Your task to perform on an android device: turn on the 24-hour format for clock Image 0: 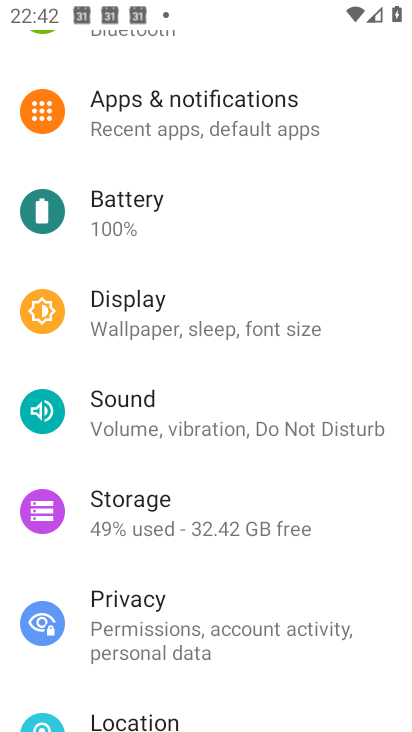
Step 0: press home button
Your task to perform on an android device: turn on the 24-hour format for clock Image 1: 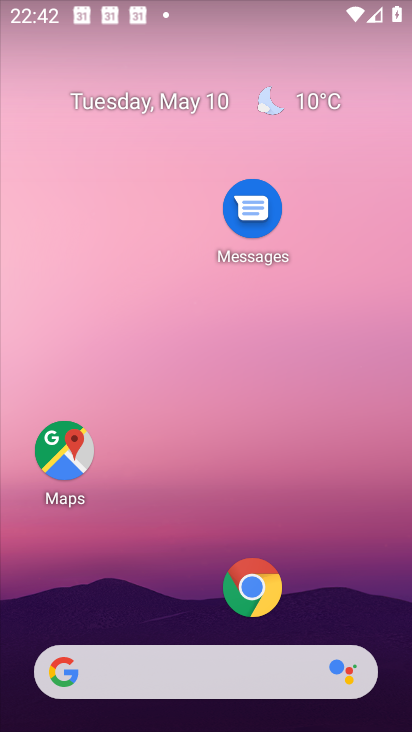
Step 1: drag from (149, 568) to (220, 211)
Your task to perform on an android device: turn on the 24-hour format for clock Image 2: 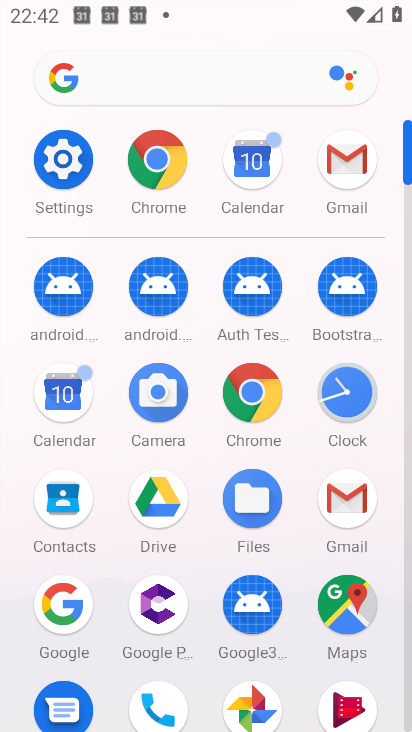
Step 2: click (57, 160)
Your task to perform on an android device: turn on the 24-hour format for clock Image 3: 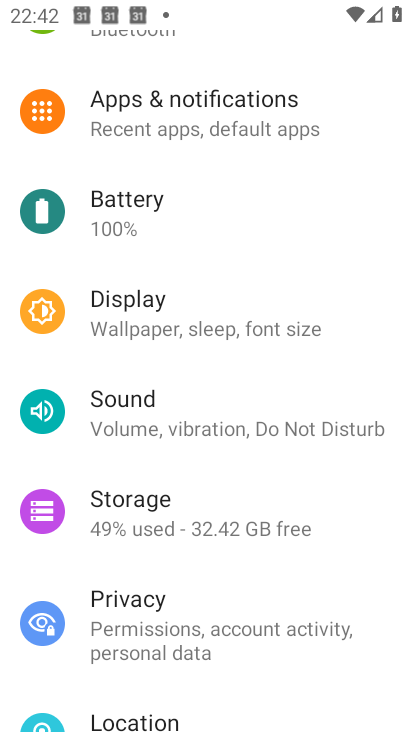
Step 3: drag from (171, 587) to (263, 324)
Your task to perform on an android device: turn on the 24-hour format for clock Image 4: 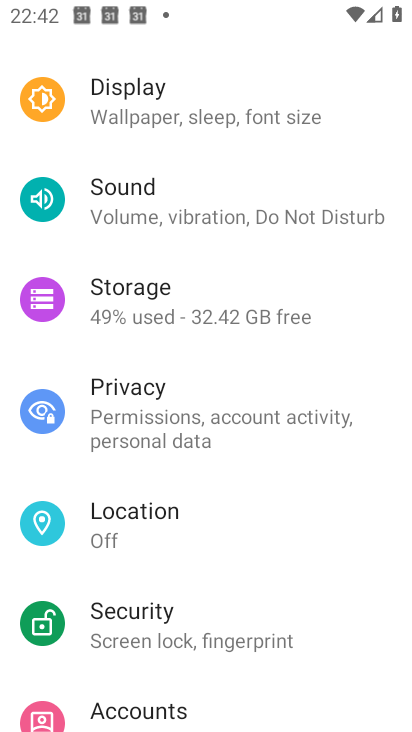
Step 4: drag from (232, 595) to (305, 247)
Your task to perform on an android device: turn on the 24-hour format for clock Image 5: 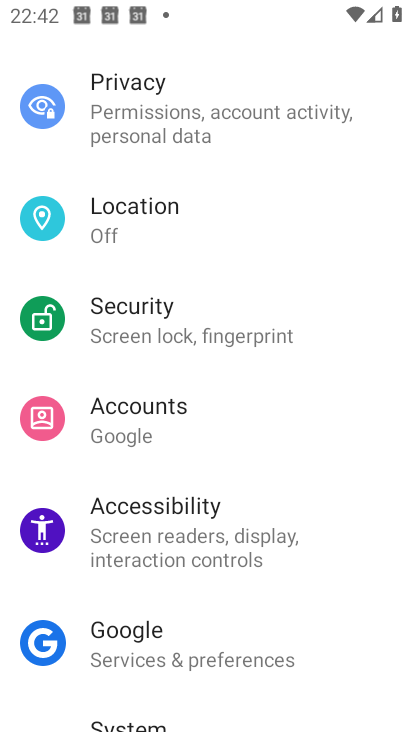
Step 5: drag from (222, 581) to (271, 308)
Your task to perform on an android device: turn on the 24-hour format for clock Image 6: 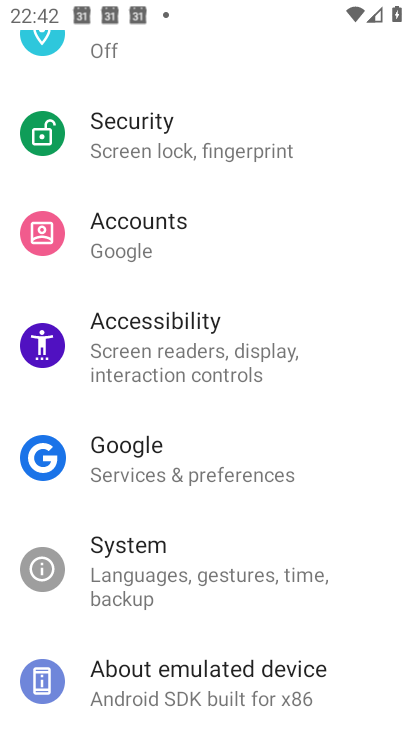
Step 6: click (180, 578)
Your task to perform on an android device: turn on the 24-hour format for clock Image 7: 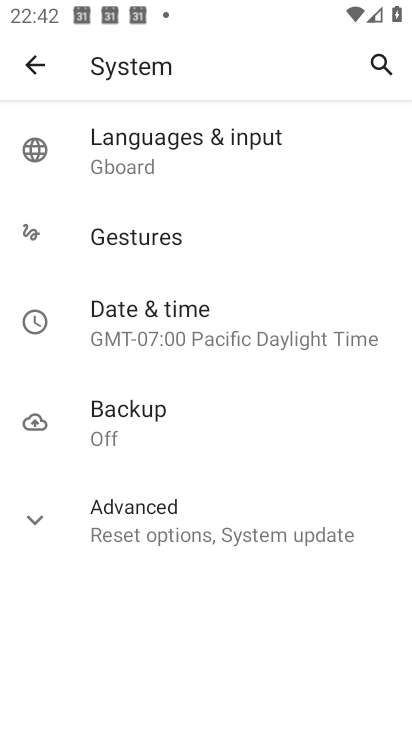
Step 7: click (178, 335)
Your task to perform on an android device: turn on the 24-hour format for clock Image 8: 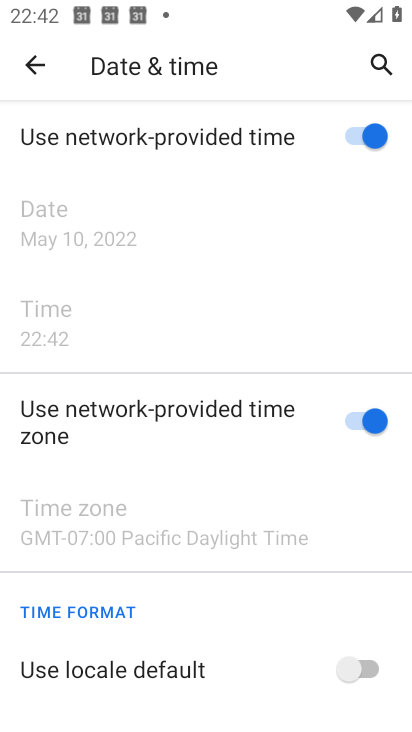
Step 8: task complete